Your task to perform on an android device: Turn on the flashlight Image 0: 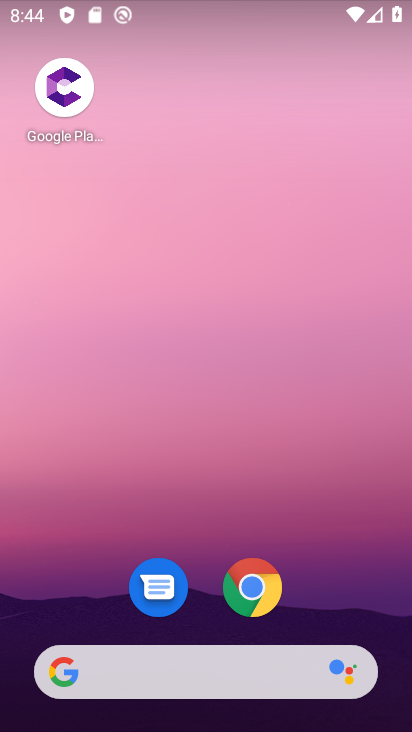
Step 0: drag from (184, 6) to (175, 684)
Your task to perform on an android device: Turn on the flashlight Image 1: 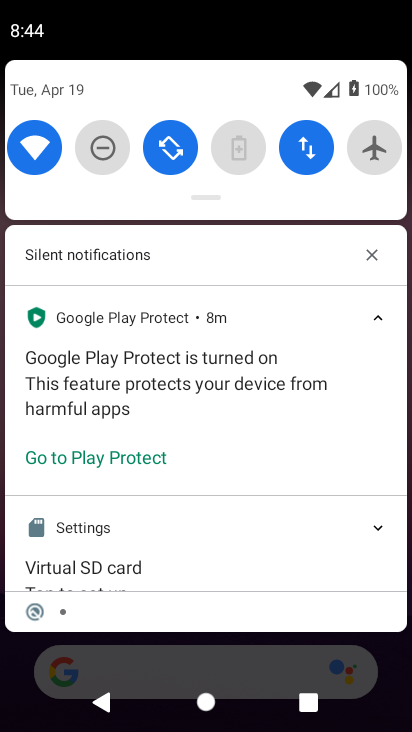
Step 1: task complete